Your task to perform on an android device: Go to settings Image 0: 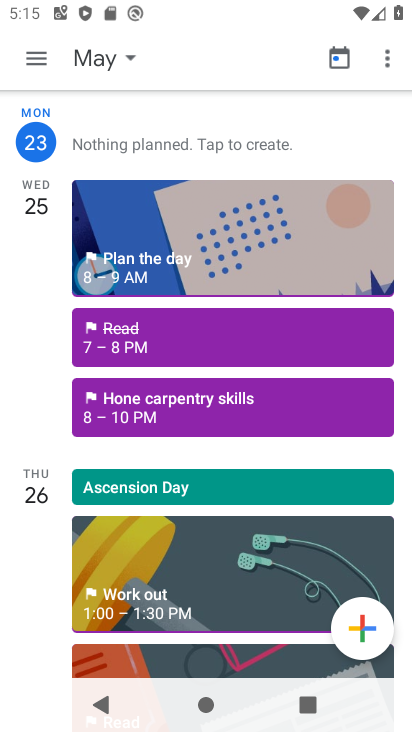
Step 0: press home button
Your task to perform on an android device: Go to settings Image 1: 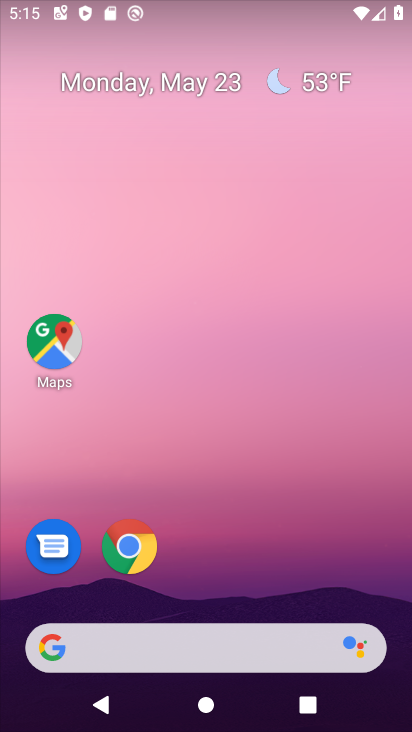
Step 1: drag from (290, 569) to (257, 52)
Your task to perform on an android device: Go to settings Image 2: 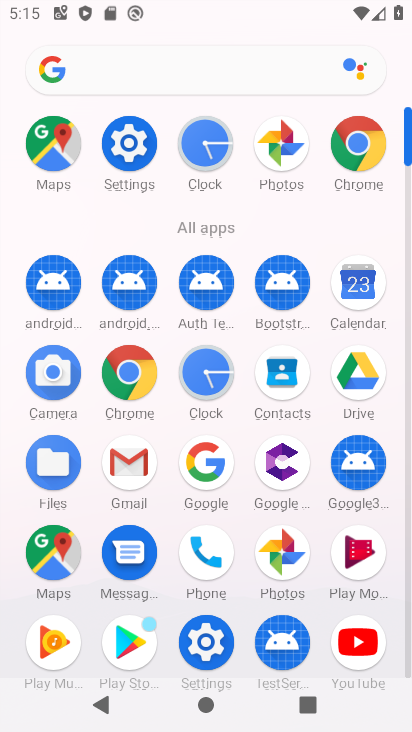
Step 2: click (132, 150)
Your task to perform on an android device: Go to settings Image 3: 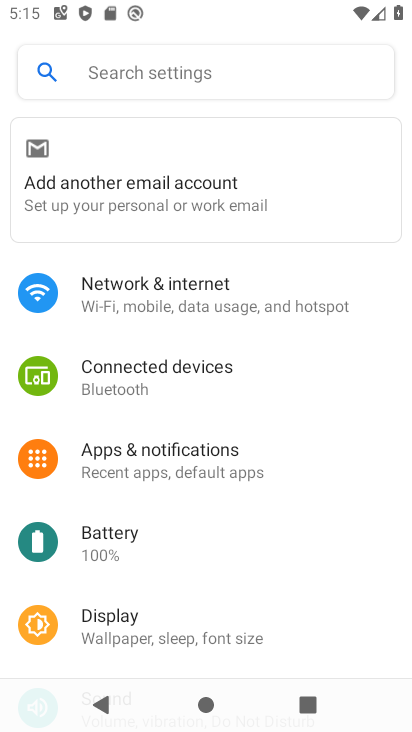
Step 3: task complete